Your task to perform on an android device: Do I have any events tomorrow? Image 0: 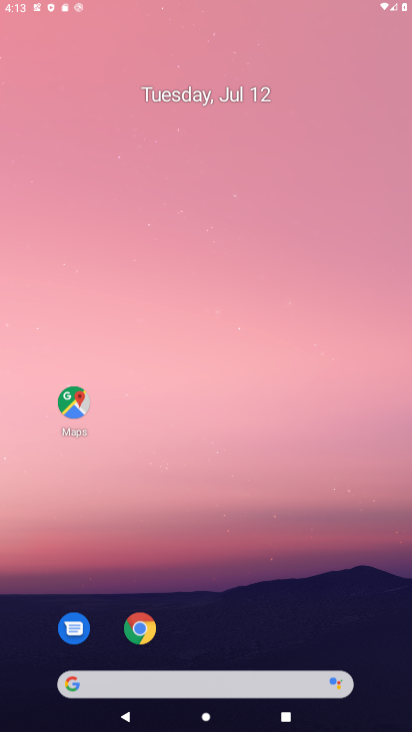
Step 0: press home button
Your task to perform on an android device: Do I have any events tomorrow? Image 1: 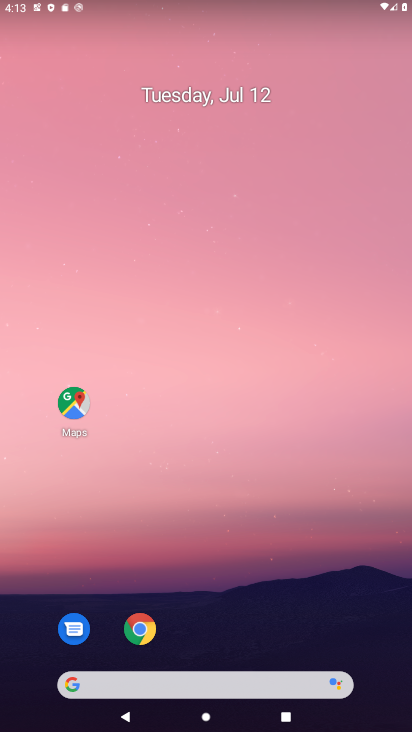
Step 1: click (61, 692)
Your task to perform on an android device: Do I have any events tomorrow? Image 2: 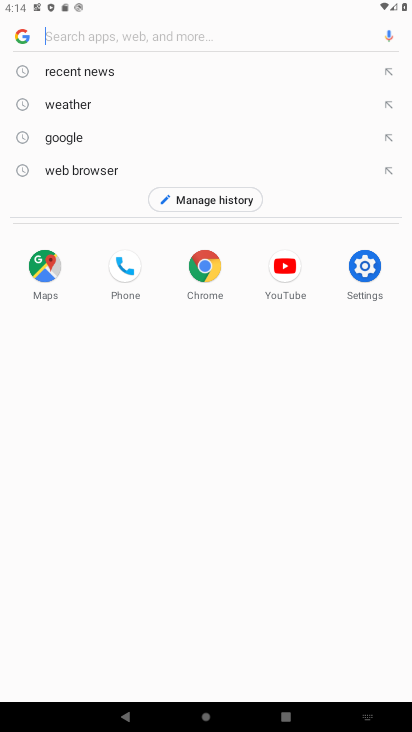
Step 2: press home button
Your task to perform on an android device: Do I have any events tomorrow? Image 3: 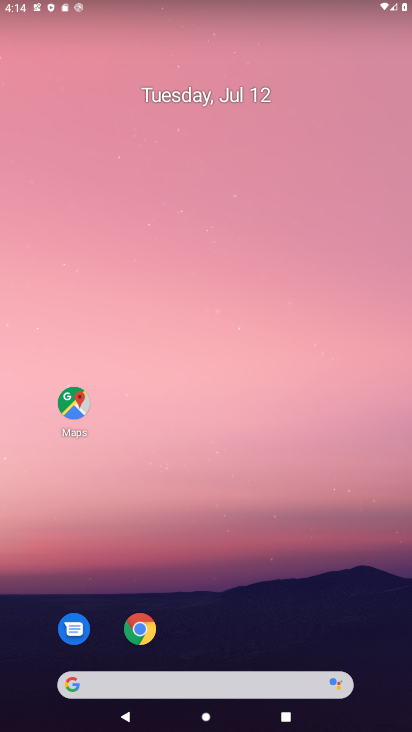
Step 3: drag from (249, 629) to (190, 26)
Your task to perform on an android device: Do I have any events tomorrow? Image 4: 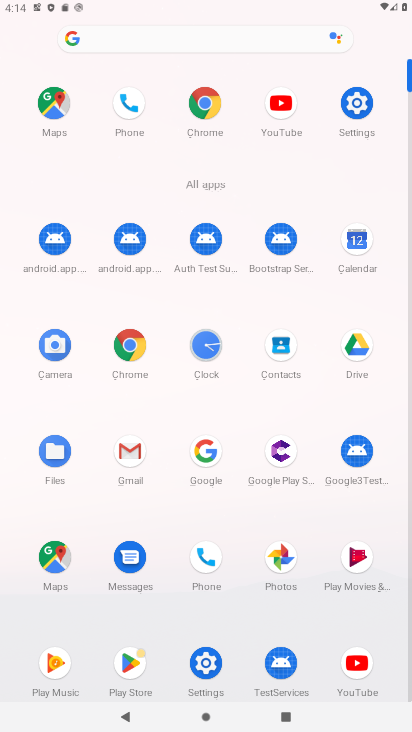
Step 4: click (363, 246)
Your task to perform on an android device: Do I have any events tomorrow? Image 5: 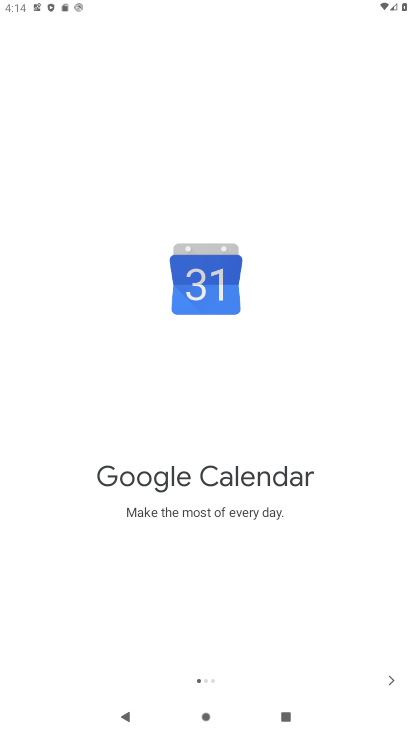
Step 5: click (390, 683)
Your task to perform on an android device: Do I have any events tomorrow? Image 6: 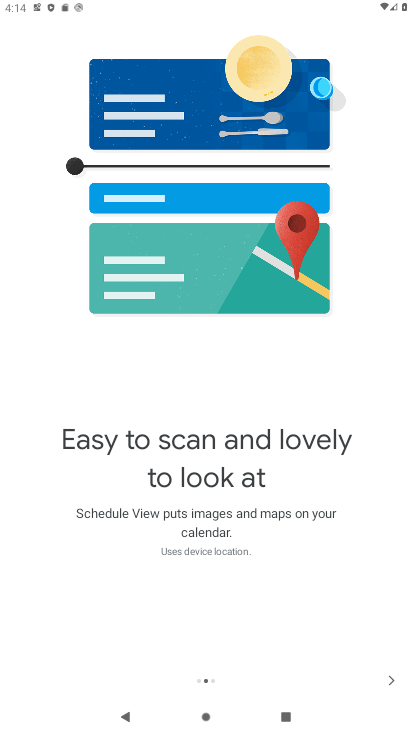
Step 6: click (390, 683)
Your task to perform on an android device: Do I have any events tomorrow? Image 7: 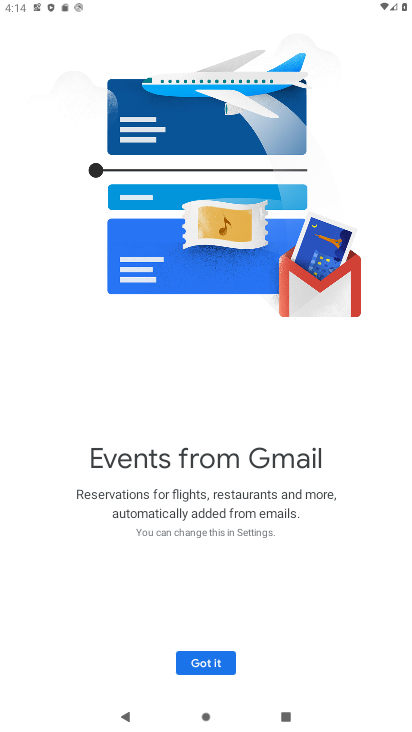
Step 7: click (203, 661)
Your task to perform on an android device: Do I have any events tomorrow? Image 8: 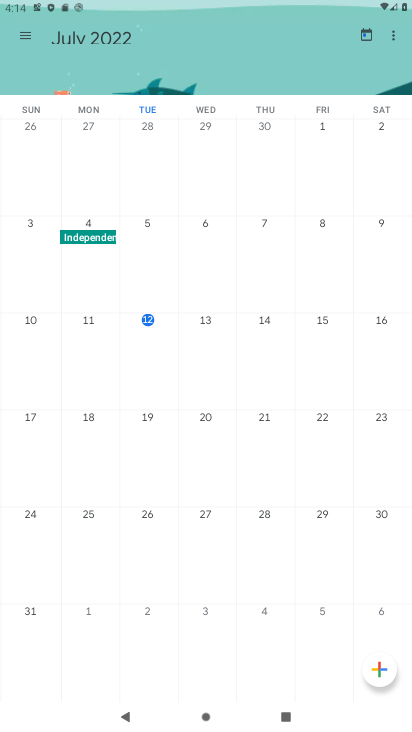
Step 8: click (206, 321)
Your task to perform on an android device: Do I have any events tomorrow? Image 9: 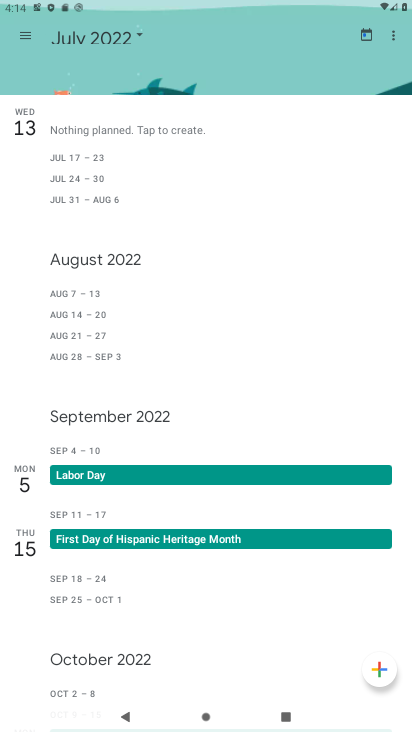
Step 9: task complete